Your task to perform on an android device: Go to calendar. Show me events next week Image 0: 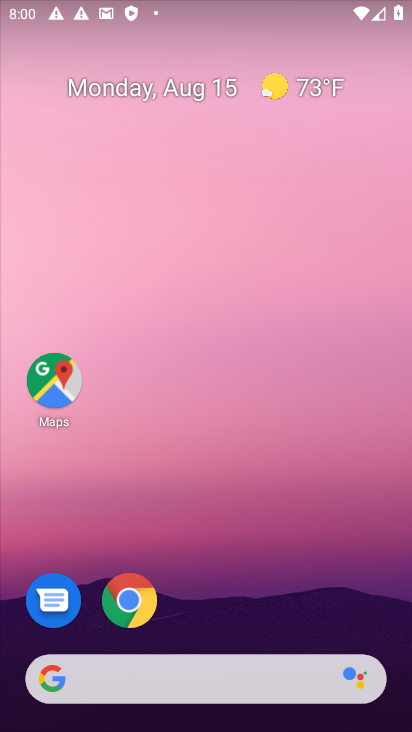
Step 0: drag from (236, 458) to (270, 0)
Your task to perform on an android device: Go to calendar. Show me events next week Image 1: 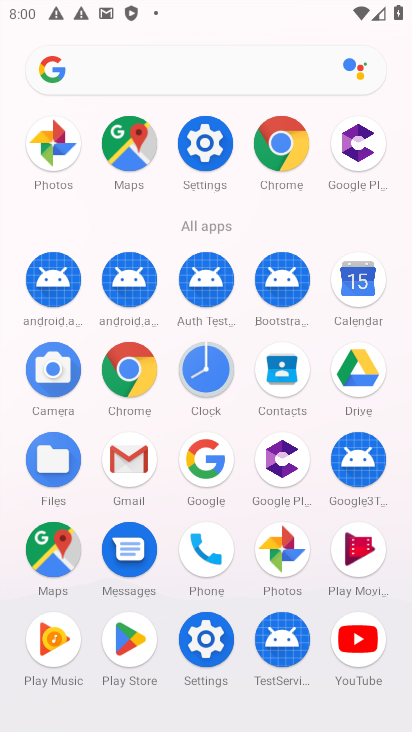
Step 1: click (359, 261)
Your task to perform on an android device: Go to calendar. Show me events next week Image 2: 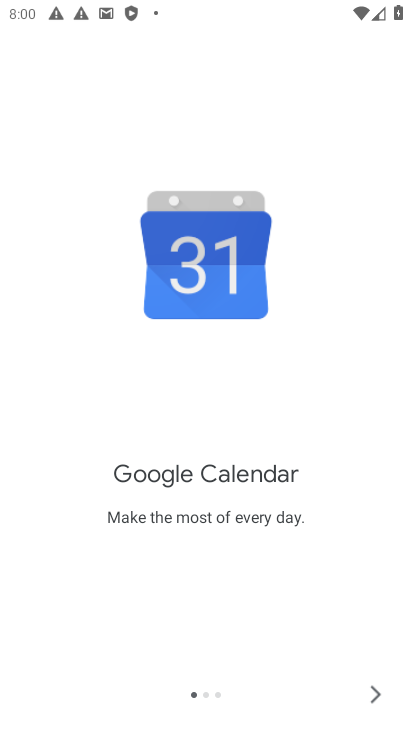
Step 2: click (375, 689)
Your task to perform on an android device: Go to calendar. Show me events next week Image 3: 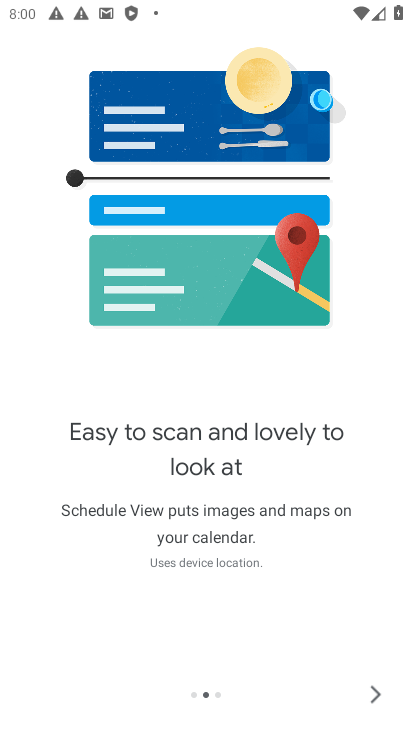
Step 3: click (373, 691)
Your task to perform on an android device: Go to calendar. Show me events next week Image 4: 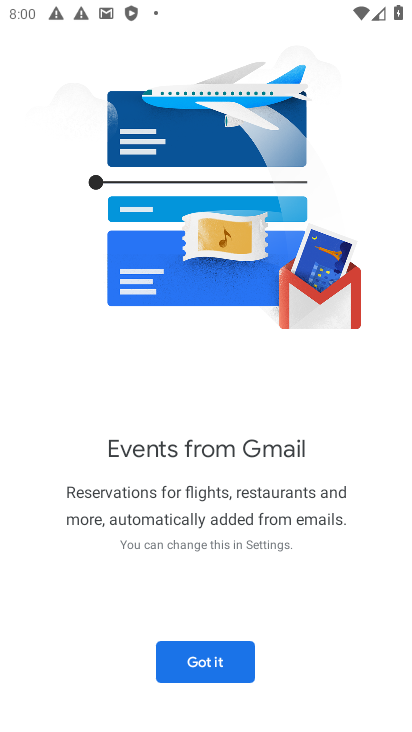
Step 4: click (207, 659)
Your task to perform on an android device: Go to calendar. Show me events next week Image 5: 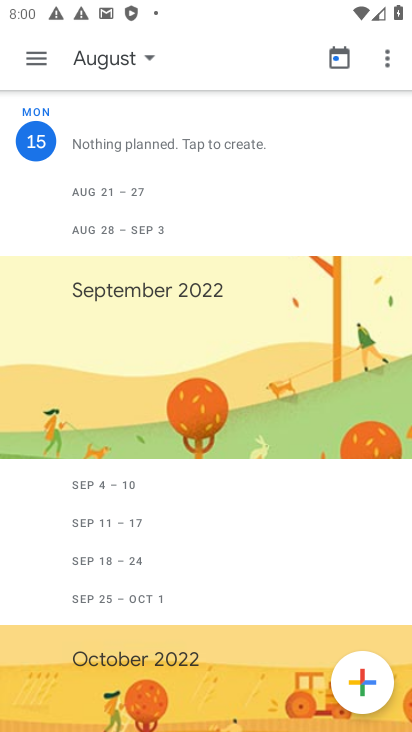
Step 5: click (24, 60)
Your task to perform on an android device: Go to calendar. Show me events next week Image 6: 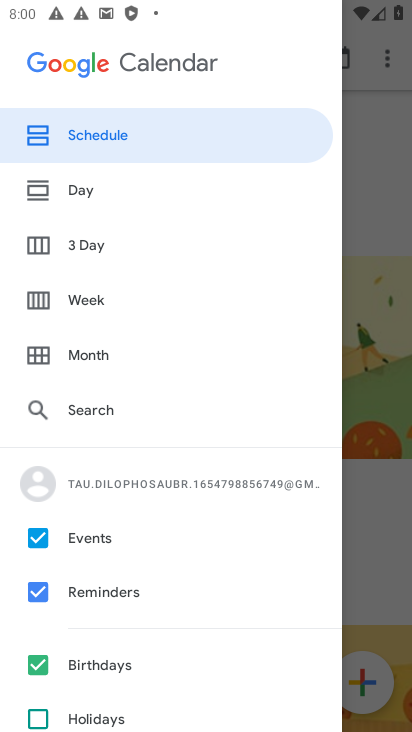
Step 6: click (33, 666)
Your task to perform on an android device: Go to calendar. Show me events next week Image 7: 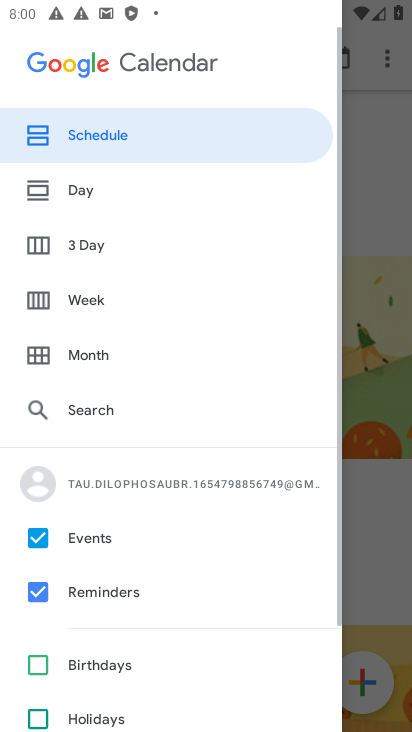
Step 7: click (31, 583)
Your task to perform on an android device: Go to calendar. Show me events next week Image 8: 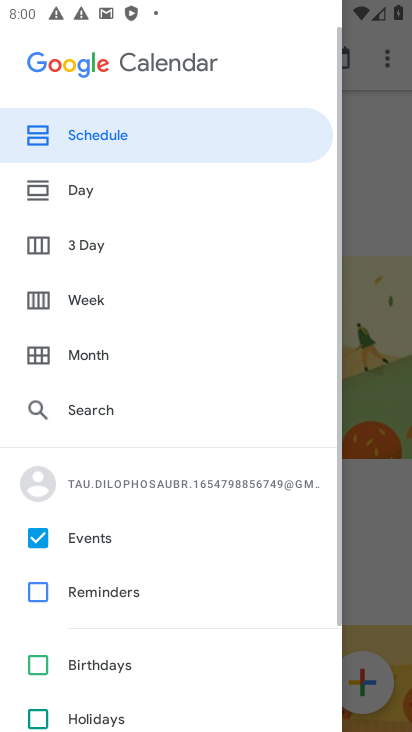
Step 8: click (74, 294)
Your task to perform on an android device: Go to calendar. Show me events next week Image 9: 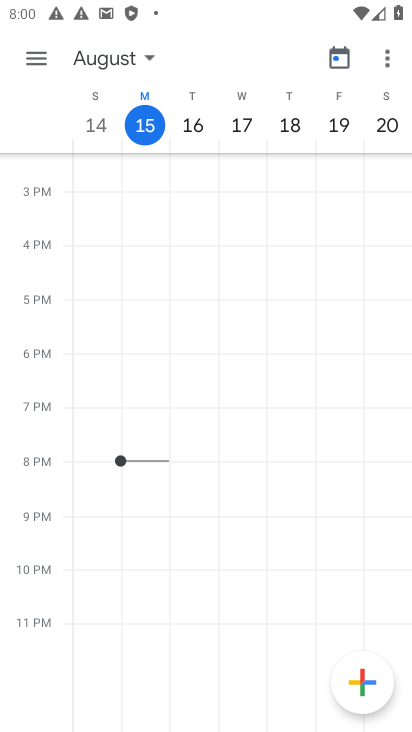
Step 9: task complete